Your task to perform on an android device: turn off priority inbox in the gmail app Image 0: 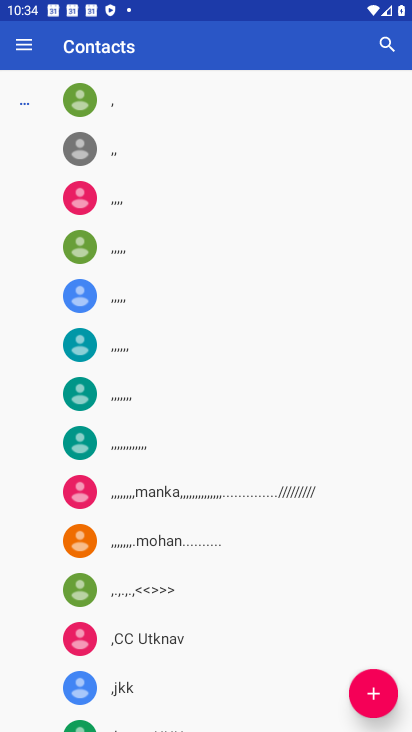
Step 0: press home button
Your task to perform on an android device: turn off priority inbox in the gmail app Image 1: 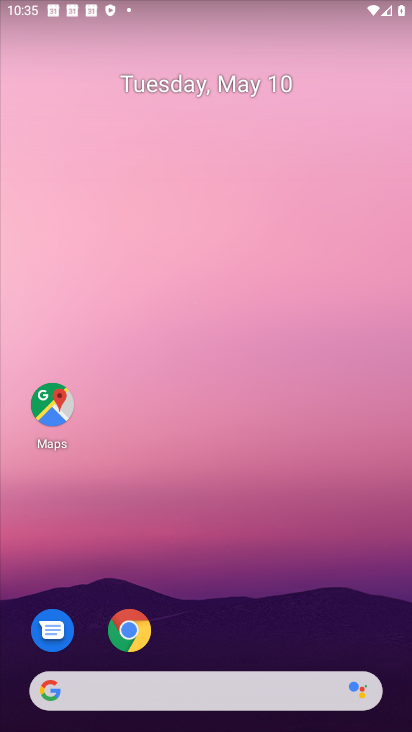
Step 1: drag from (181, 725) to (305, 107)
Your task to perform on an android device: turn off priority inbox in the gmail app Image 2: 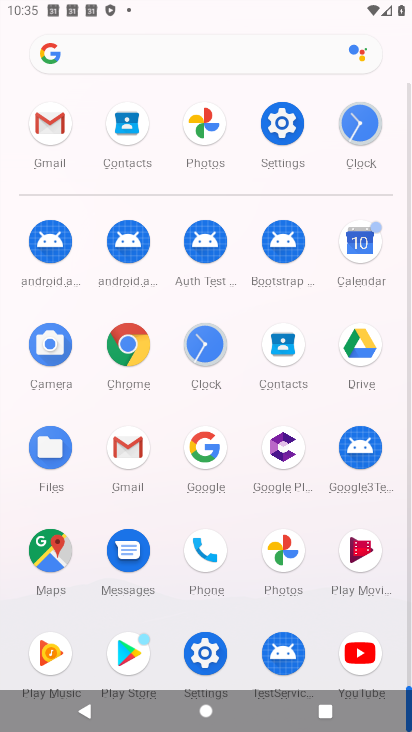
Step 2: click (59, 94)
Your task to perform on an android device: turn off priority inbox in the gmail app Image 3: 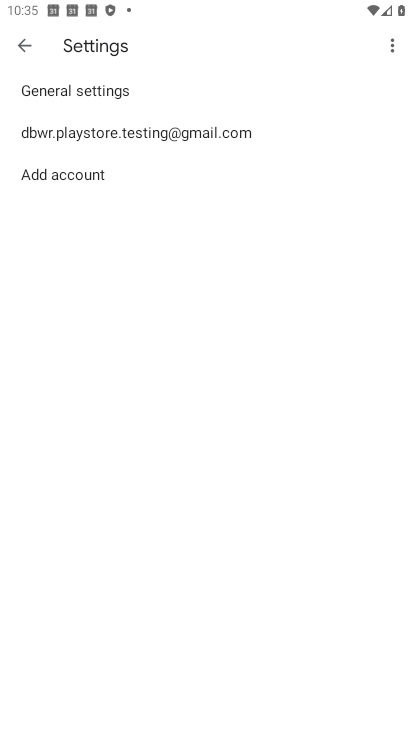
Step 3: click (248, 118)
Your task to perform on an android device: turn off priority inbox in the gmail app Image 4: 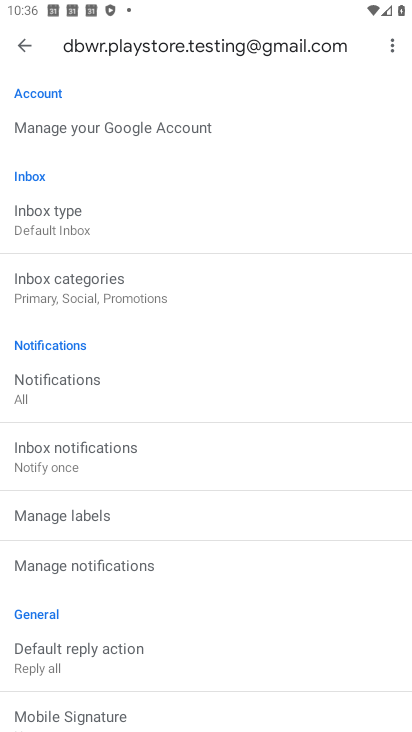
Step 4: click (52, 227)
Your task to perform on an android device: turn off priority inbox in the gmail app Image 5: 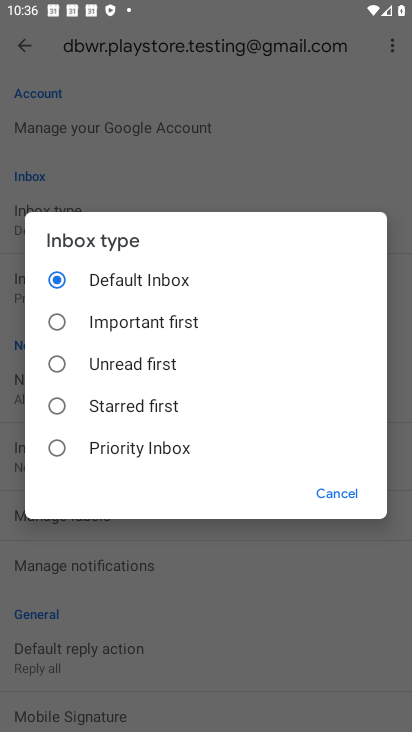
Step 5: task complete